Your task to perform on an android device: turn on priority inbox in the gmail app Image 0: 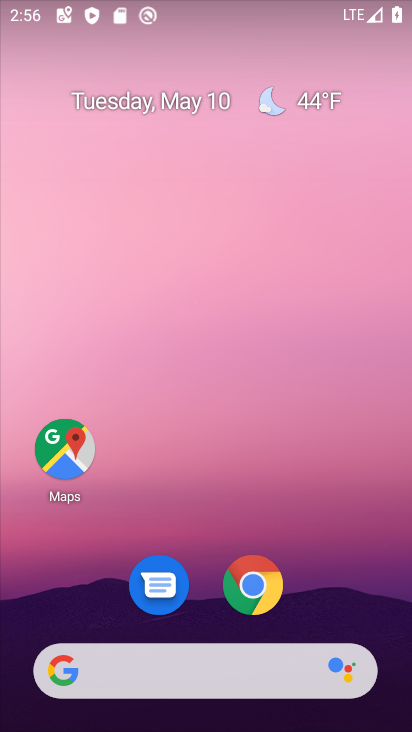
Step 0: drag from (373, 533) to (314, 40)
Your task to perform on an android device: turn on priority inbox in the gmail app Image 1: 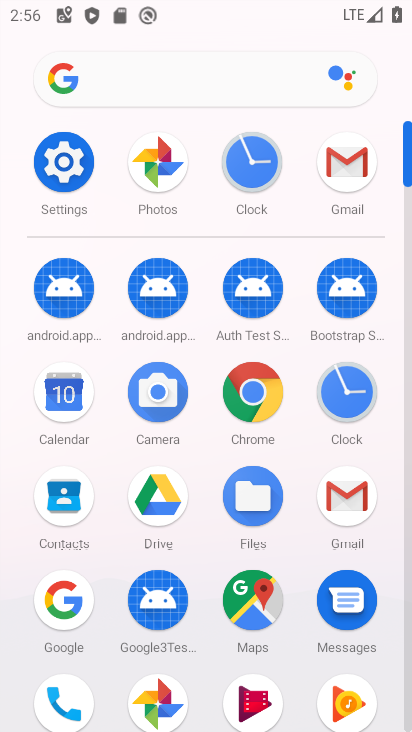
Step 1: click (342, 159)
Your task to perform on an android device: turn on priority inbox in the gmail app Image 2: 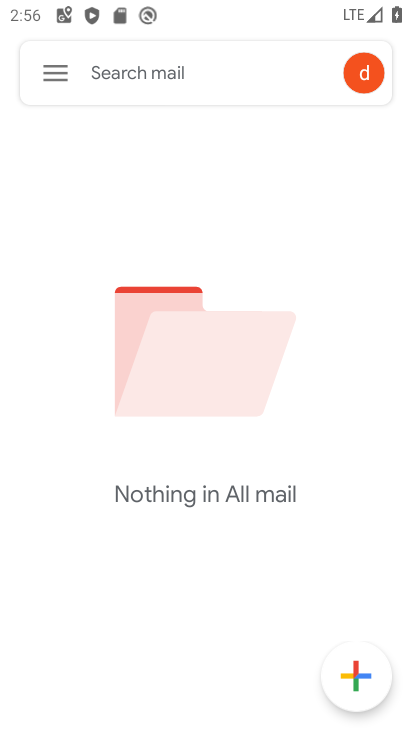
Step 2: click (60, 70)
Your task to perform on an android device: turn on priority inbox in the gmail app Image 3: 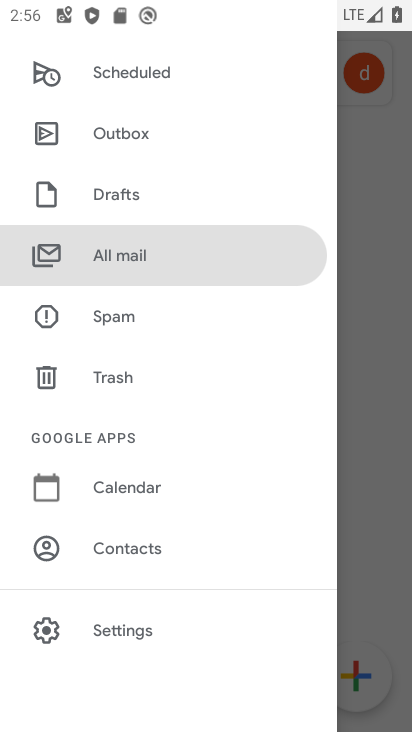
Step 3: click (142, 627)
Your task to perform on an android device: turn on priority inbox in the gmail app Image 4: 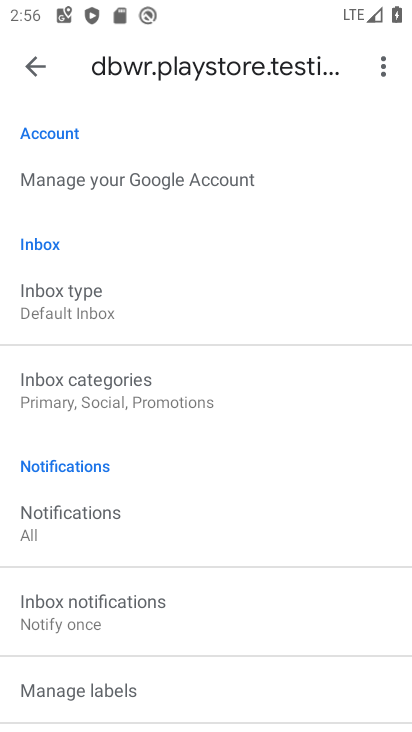
Step 4: click (93, 294)
Your task to perform on an android device: turn on priority inbox in the gmail app Image 5: 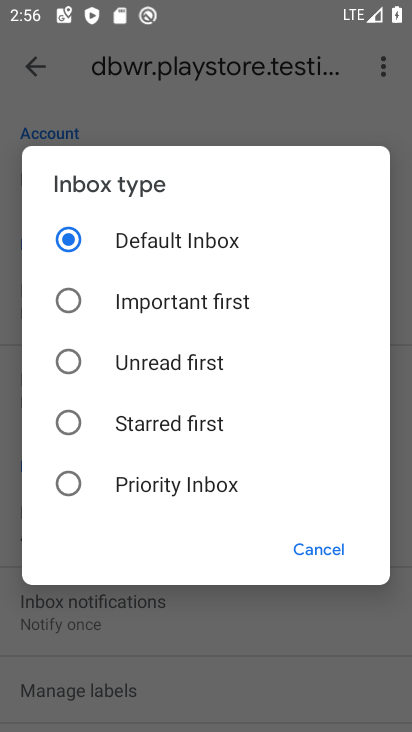
Step 5: click (65, 474)
Your task to perform on an android device: turn on priority inbox in the gmail app Image 6: 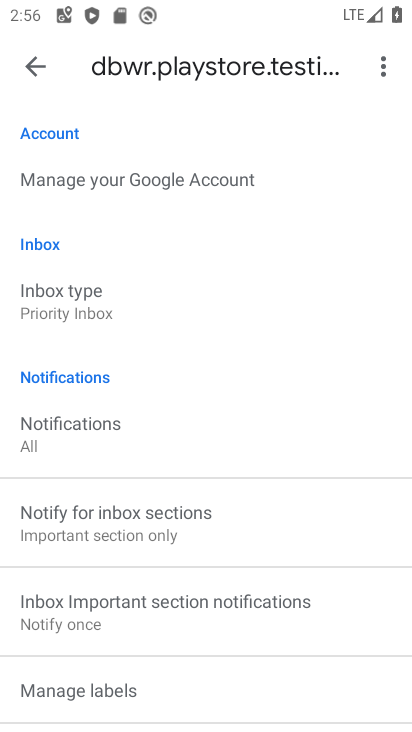
Step 6: task complete